Your task to perform on an android device: When is my next meeting? Image 0: 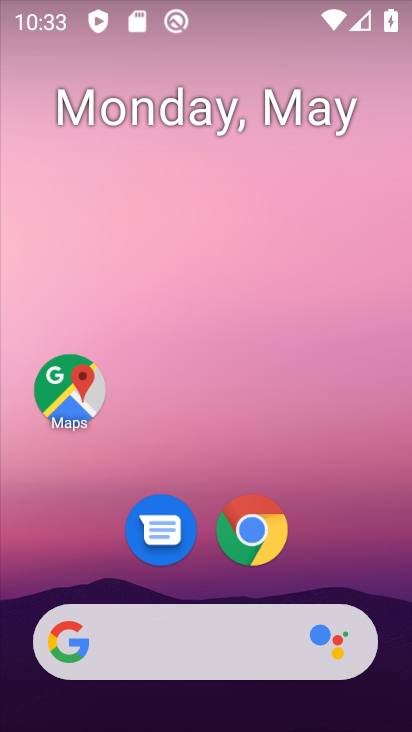
Step 0: drag from (317, 548) to (249, 4)
Your task to perform on an android device: When is my next meeting? Image 1: 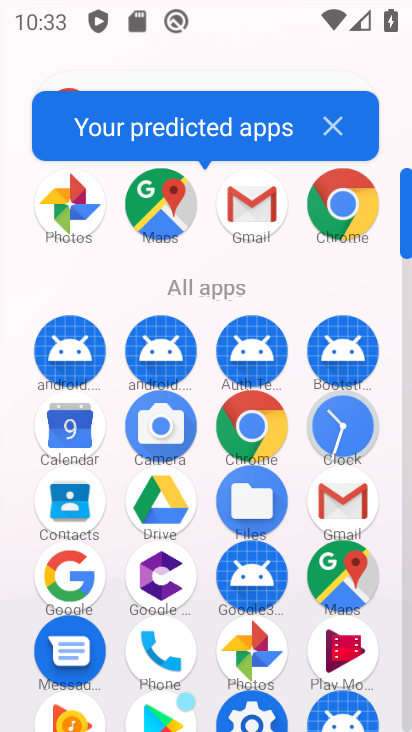
Step 1: click (69, 429)
Your task to perform on an android device: When is my next meeting? Image 2: 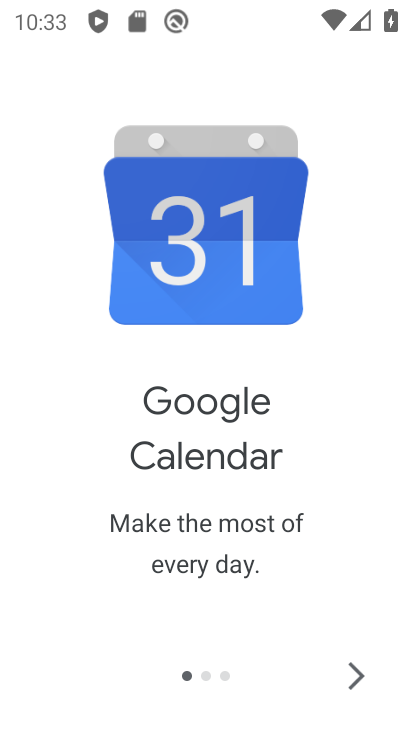
Step 2: click (355, 673)
Your task to perform on an android device: When is my next meeting? Image 3: 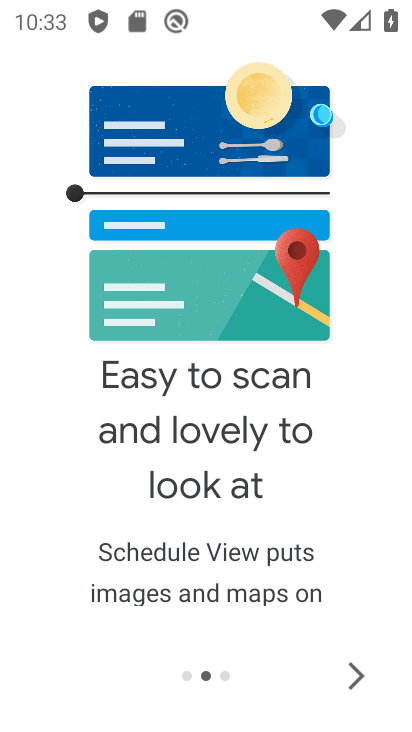
Step 3: click (355, 673)
Your task to perform on an android device: When is my next meeting? Image 4: 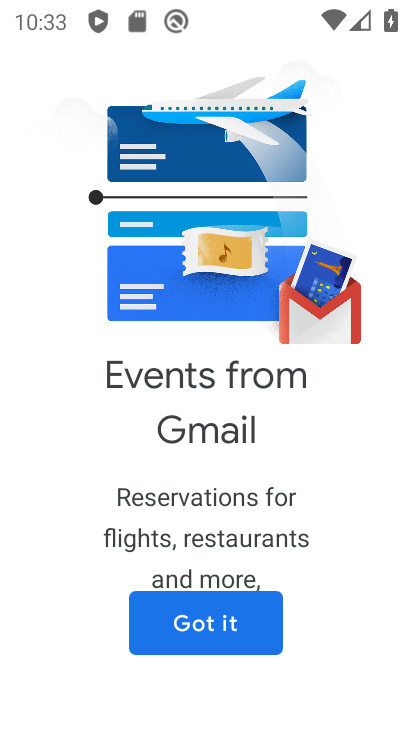
Step 4: click (222, 620)
Your task to perform on an android device: When is my next meeting? Image 5: 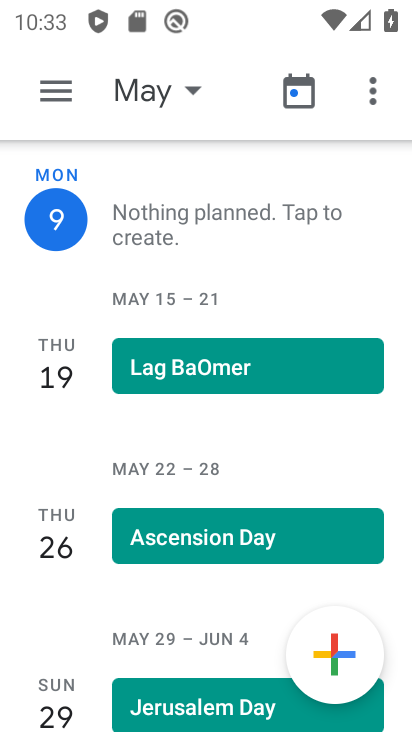
Step 5: click (196, 85)
Your task to perform on an android device: When is my next meeting? Image 6: 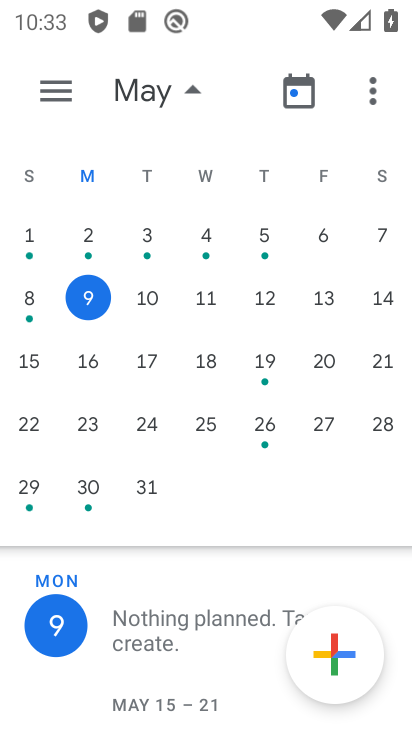
Step 6: click (143, 293)
Your task to perform on an android device: When is my next meeting? Image 7: 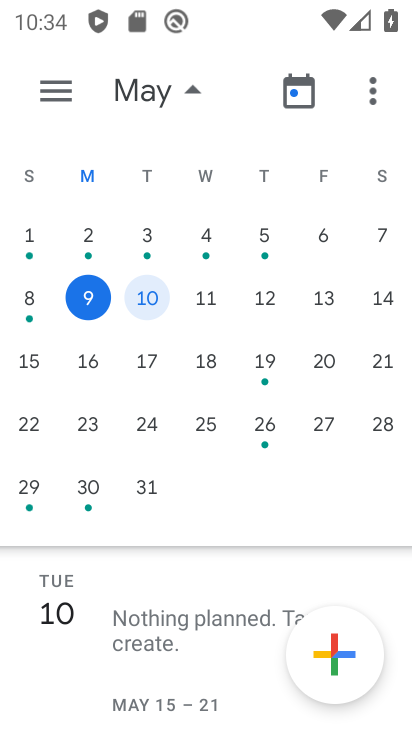
Step 7: task complete